Your task to perform on an android device: turn off airplane mode Image 0: 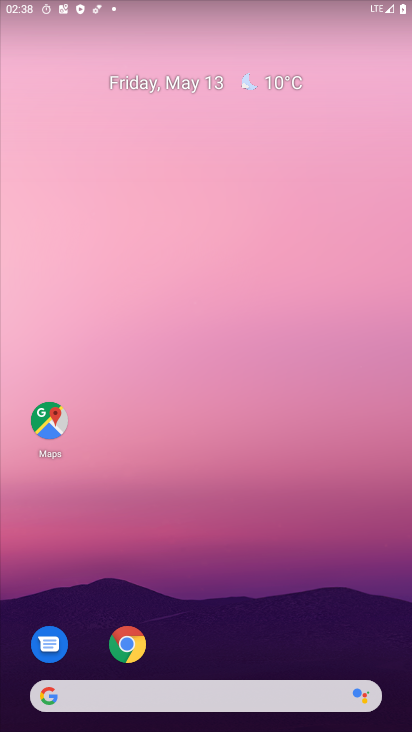
Step 0: drag from (251, 680) to (240, 54)
Your task to perform on an android device: turn off airplane mode Image 1: 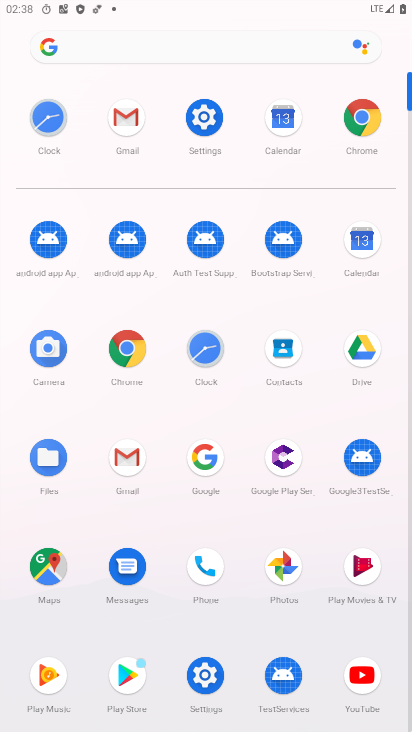
Step 1: click (194, 125)
Your task to perform on an android device: turn off airplane mode Image 2: 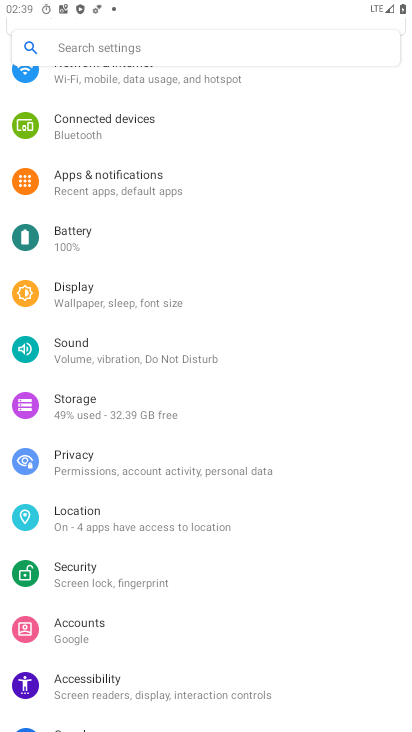
Step 2: drag from (173, 114) to (174, 541)
Your task to perform on an android device: turn off airplane mode Image 3: 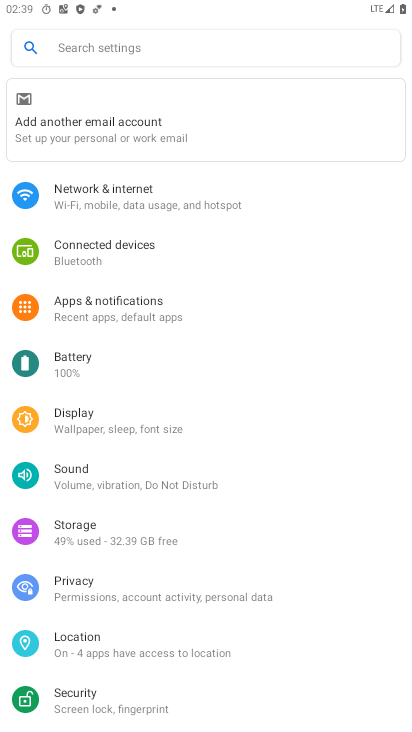
Step 3: click (187, 205)
Your task to perform on an android device: turn off airplane mode Image 4: 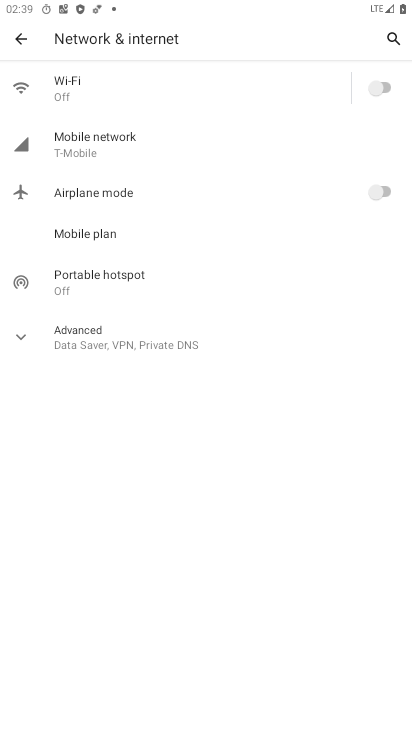
Step 4: task complete